Your task to perform on an android device: turn on translation in the chrome app Image 0: 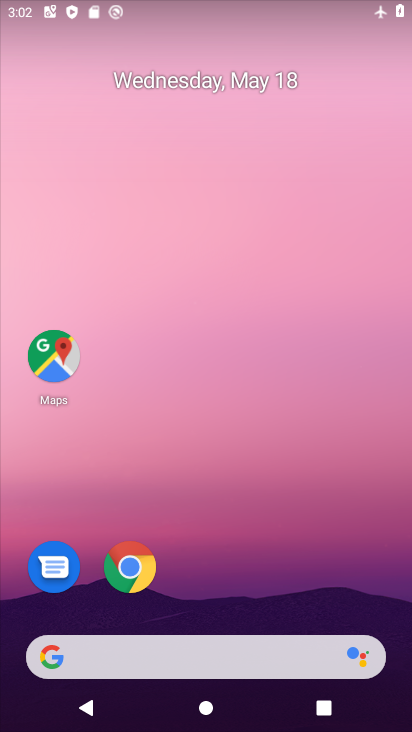
Step 0: drag from (204, 584) to (162, 308)
Your task to perform on an android device: turn on translation in the chrome app Image 1: 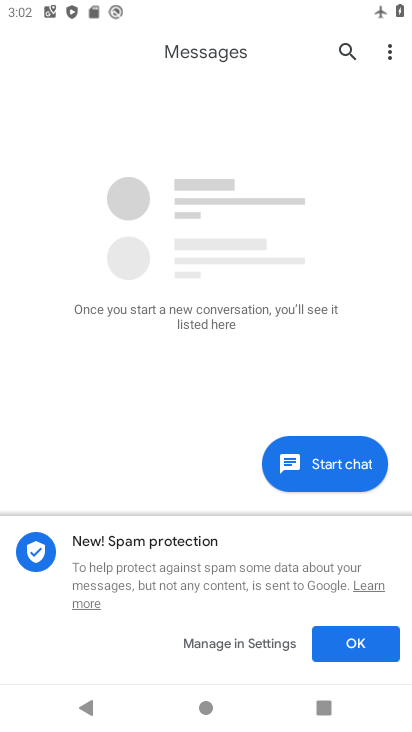
Step 1: press home button
Your task to perform on an android device: turn on translation in the chrome app Image 2: 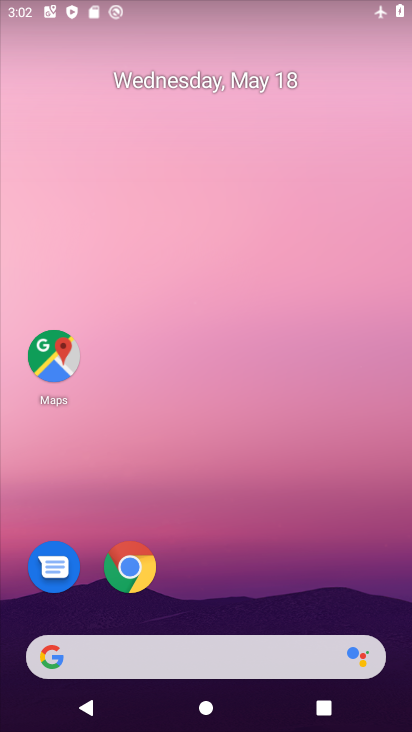
Step 2: drag from (251, 544) to (234, 230)
Your task to perform on an android device: turn on translation in the chrome app Image 3: 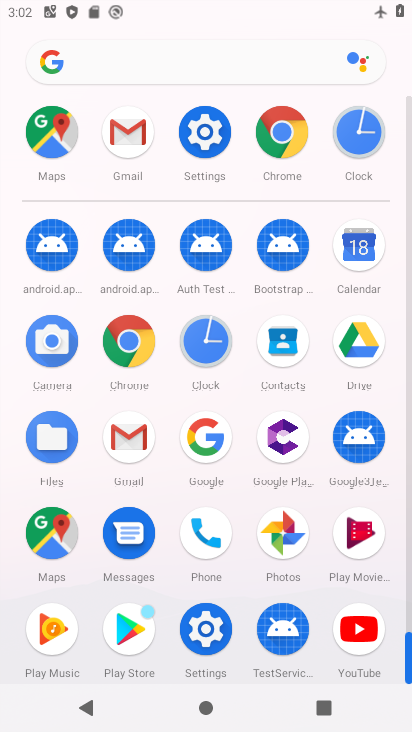
Step 3: click (280, 118)
Your task to perform on an android device: turn on translation in the chrome app Image 4: 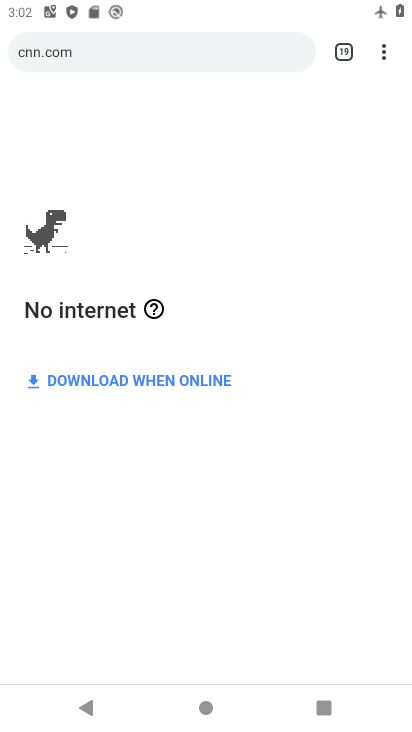
Step 4: click (371, 52)
Your task to perform on an android device: turn on translation in the chrome app Image 5: 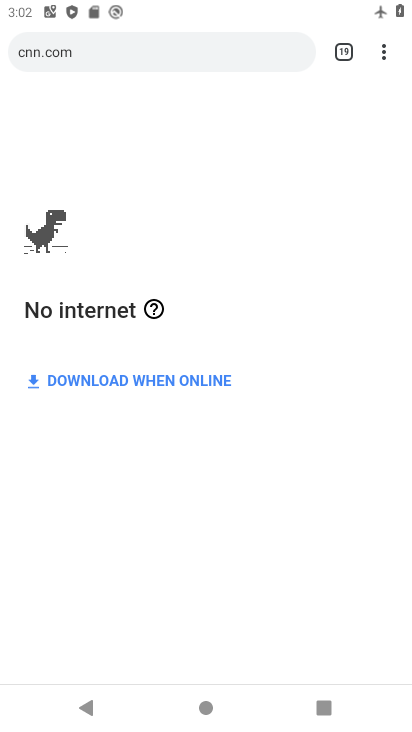
Step 5: click (378, 47)
Your task to perform on an android device: turn on translation in the chrome app Image 6: 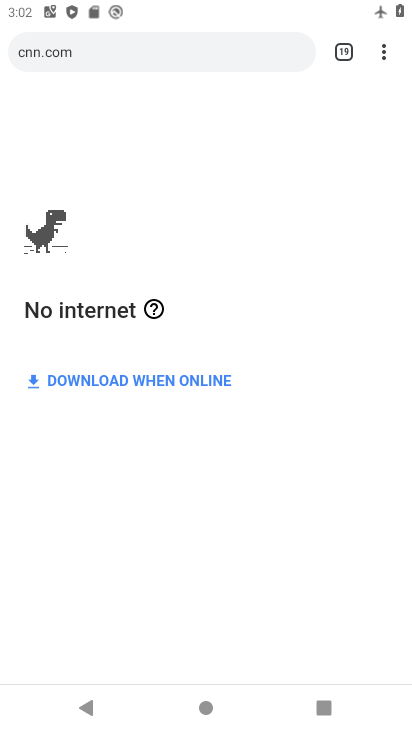
Step 6: click (382, 51)
Your task to perform on an android device: turn on translation in the chrome app Image 7: 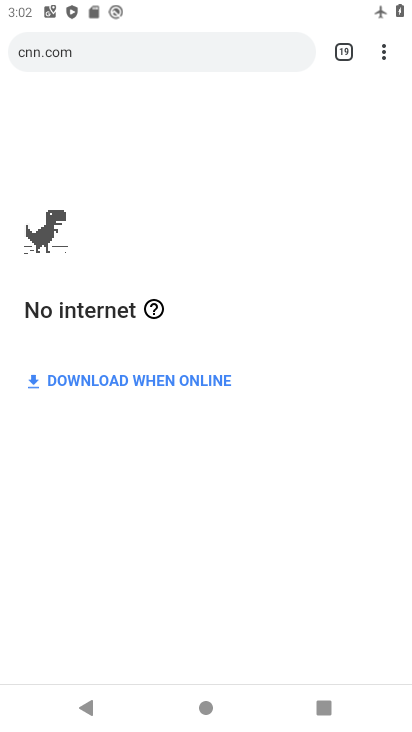
Step 7: click (382, 51)
Your task to perform on an android device: turn on translation in the chrome app Image 8: 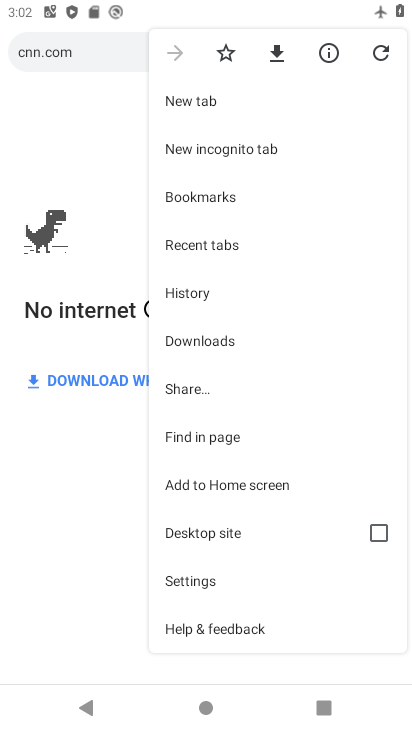
Step 8: click (223, 569)
Your task to perform on an android device: turn on translation in the chrome app Image 9: 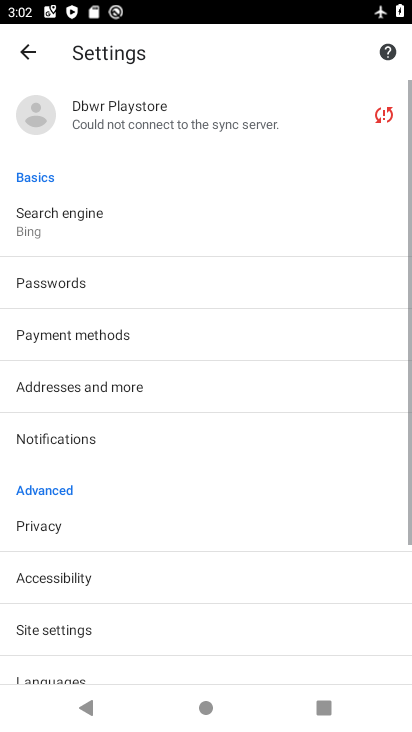
Step 9: drag from (137, 599) to (181, 322)
Your task to perform on an android device: turn on translation in the chrome app Image 10: 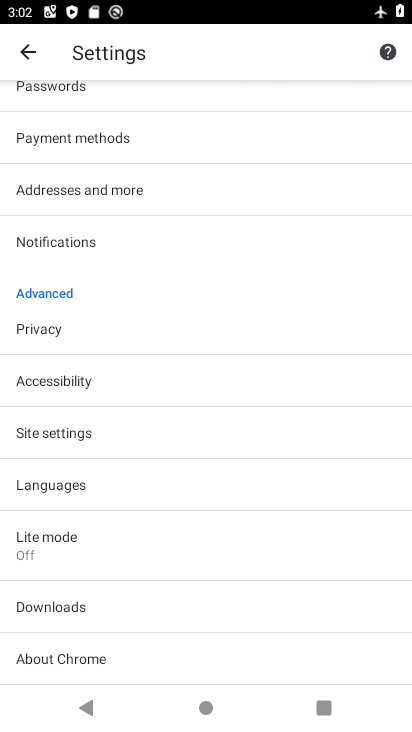
Step 10: click (96, 476)
Your task to perform on an android device: turn on translation in the chrome app Image 11: 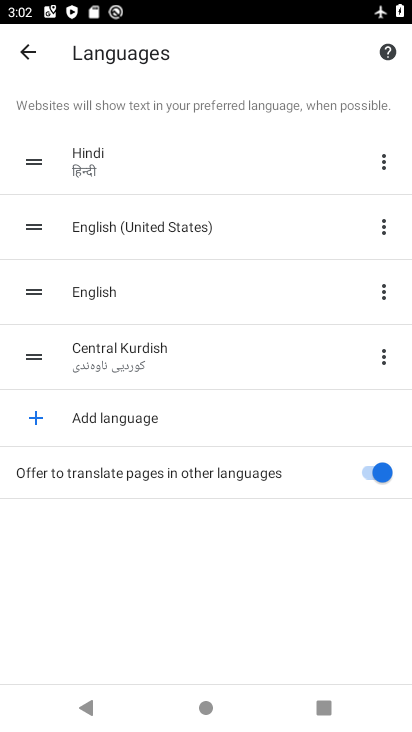
Step 11: task complete